Your task to perform on an android device: turn on sleep mode Image 0: 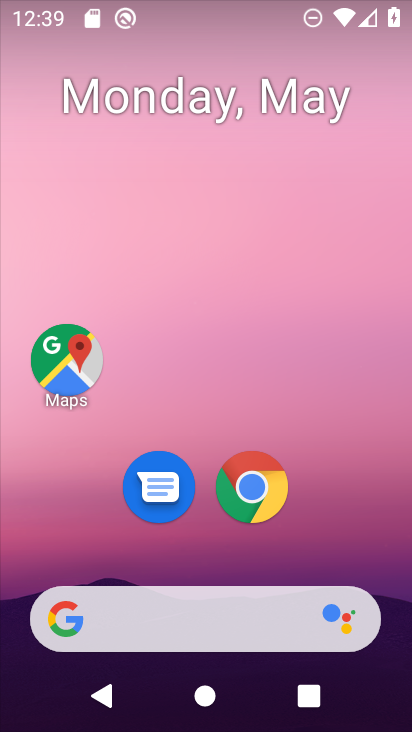
Step 0: drag from (325, 547) to (232, 77)
Your task to perform on an android device: turn on sleep mode Image 1: 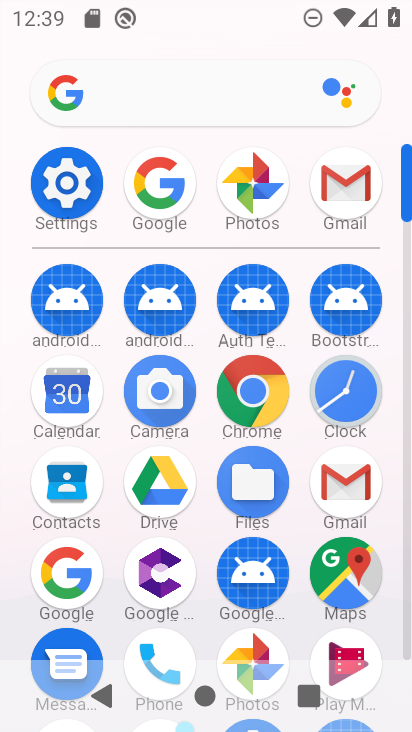
Step 1: click (69, 180)
Your task to perform on an android device: turn on sleep mode Image 2: 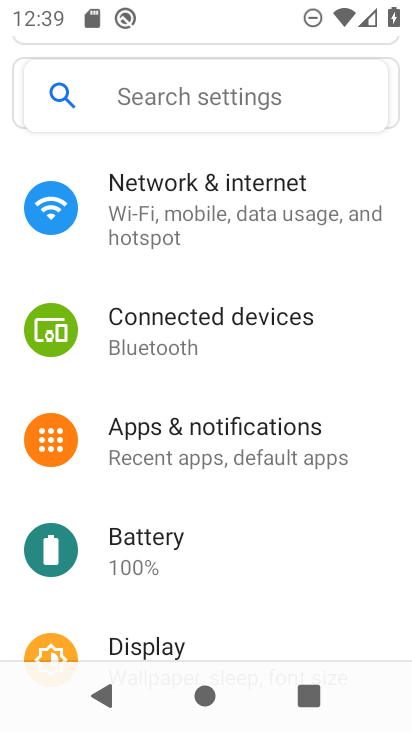
Step 2: drag from (199, 470) to (228, 409)
Your task to perform on an android device: turn on sleep mode Image 3: 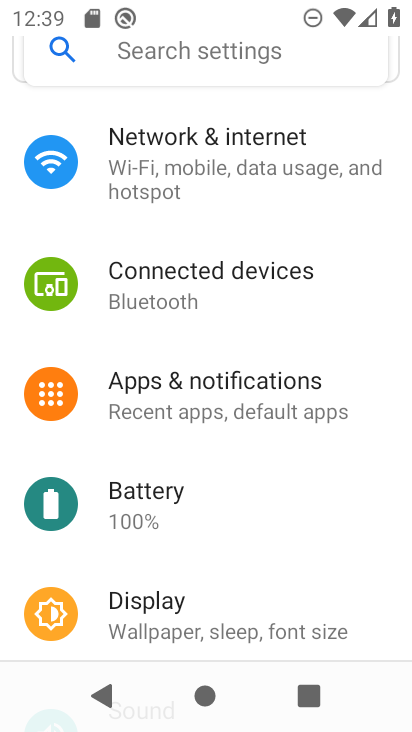
Step 3: drag from (198, 524) to (254, 432)
Your task to perform on an android device: turn on sleep mode Image 4: 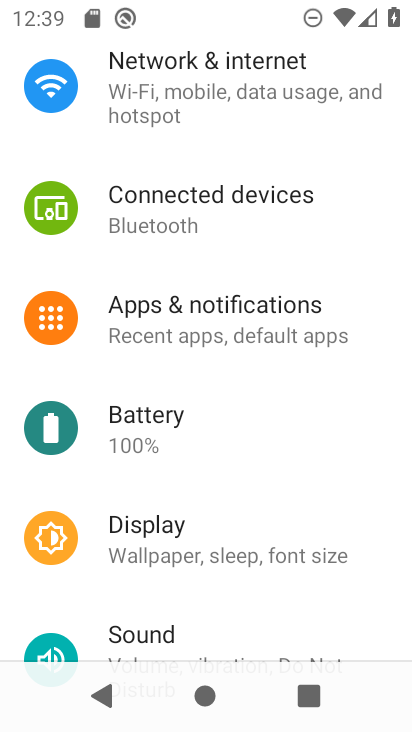
Step 4: drag from (180, 495) to (205, 414)
Your task to perform on an android device: turn on sleep mode Image 5: 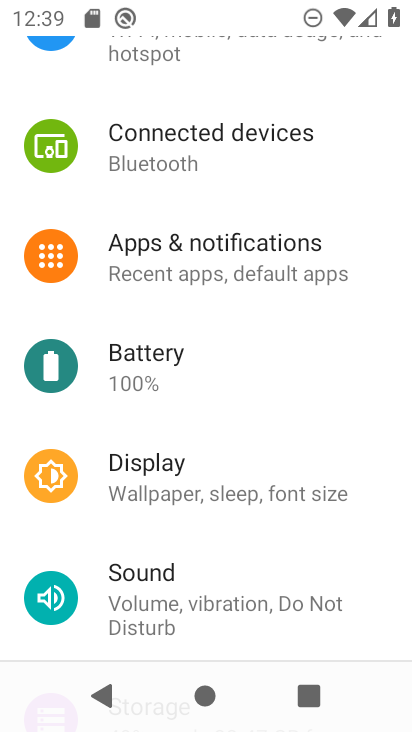
Step 5: drag from (137, 535) to (180, 438)
Your task to perform on an android device: turn on sleep mode Image 6: 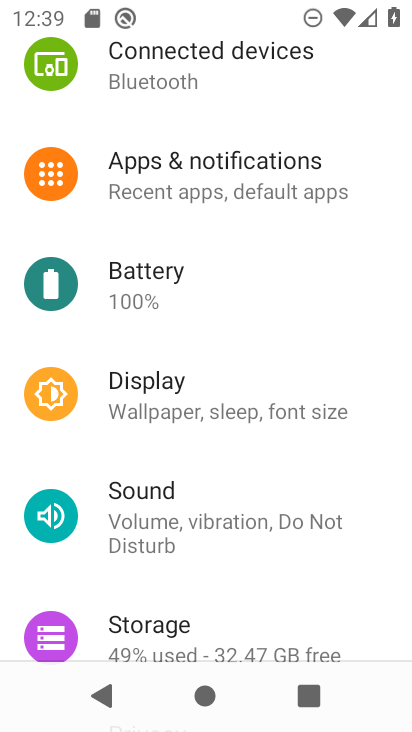
Step 6: click (201, 418)
Your task to perform on an android device: turn on sleep mode Image 7: 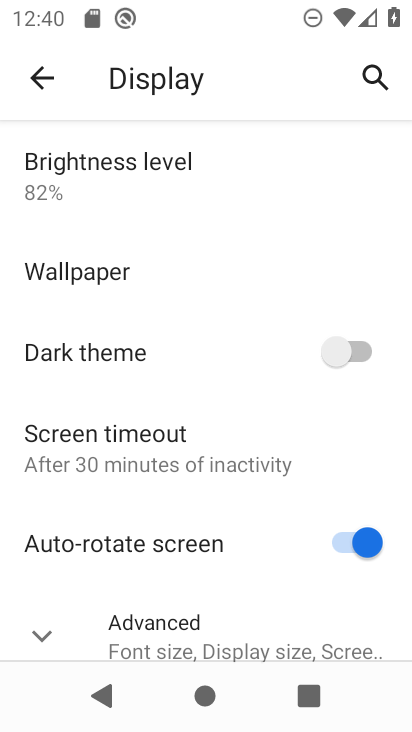
Step 7: drag from (129, 485) to (197, 390)
Your task to perform on an android device: turn on sleep mode Image 8: 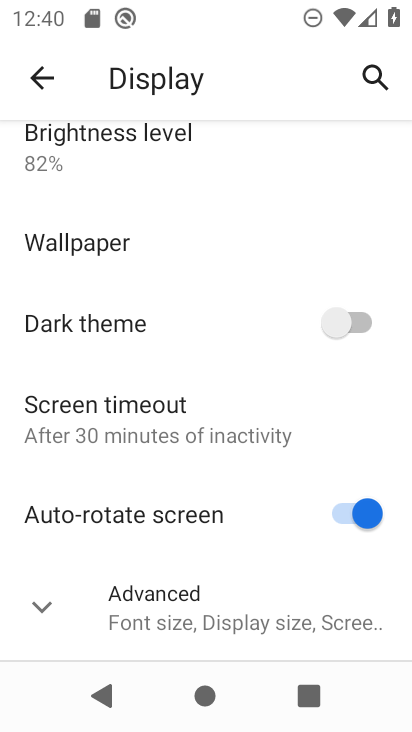
Step 8: click (156, 605)
Your task to perform on an android device: turn on sleep mode Image 9: 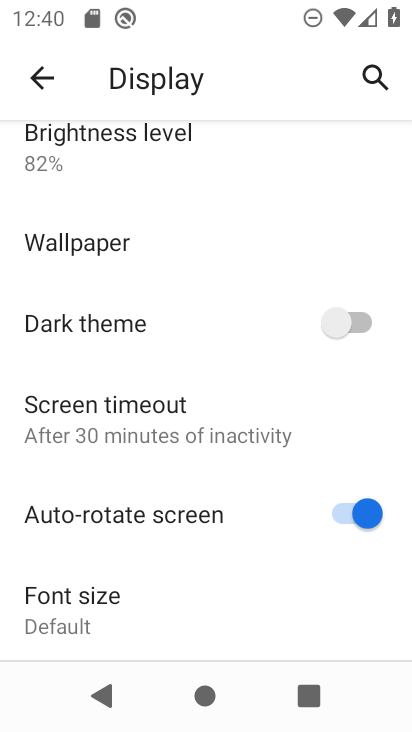
Step 9: drag from (117, 540) to (178, 449)
Your task to perform on an android device: turn on sleep mode Image 10: 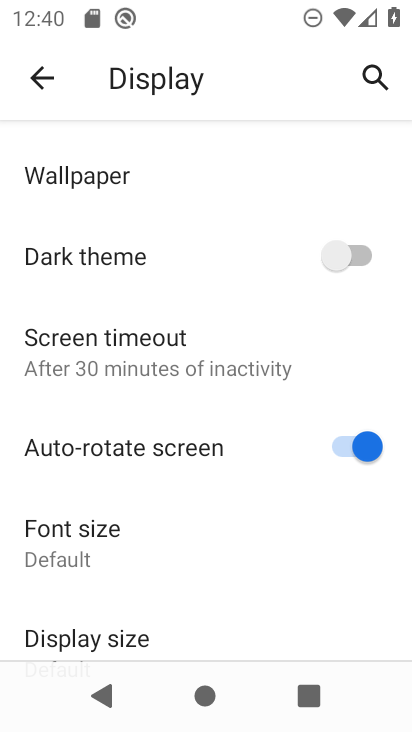
Step 10: drag from (106, 563) to (168, 485)
Your task to perform on an android device: turn on sleep mode Image 11: 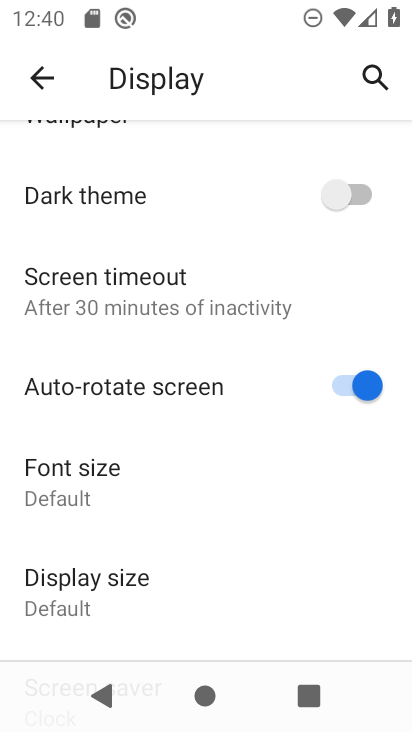
Step 11: drag from (121, 549) to (188, 462)
Your task to perform on an android device: turn on sleep mode Image 12: 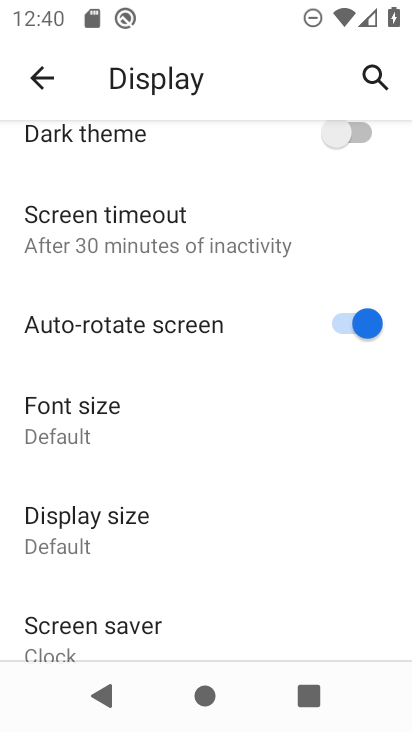
Step 12: drag from (115, 564) to (171, 477)
Your task to perform on an android device: turn on sleep mode Image 13: 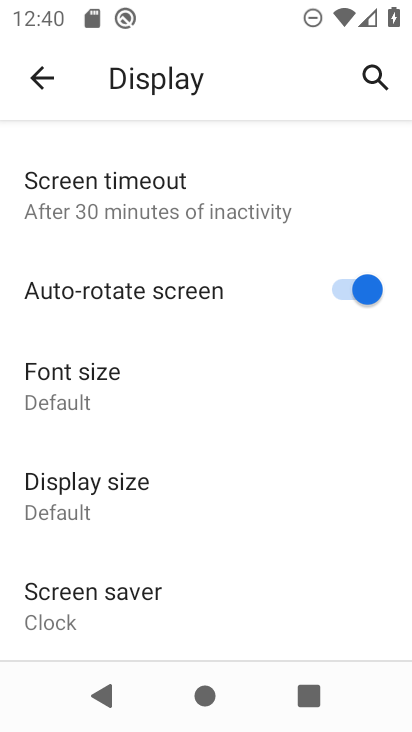
Step 13: drag from (111, 558) to (187, 448)
Your task to perform on an android device: turn on sleep mode Image 14: 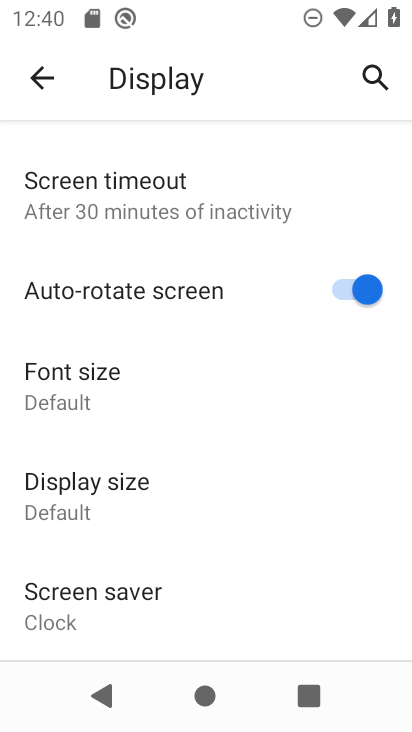
Step 14: click (105, 588)
Your task to perform on an android device: turn on sleep mode Image 15: 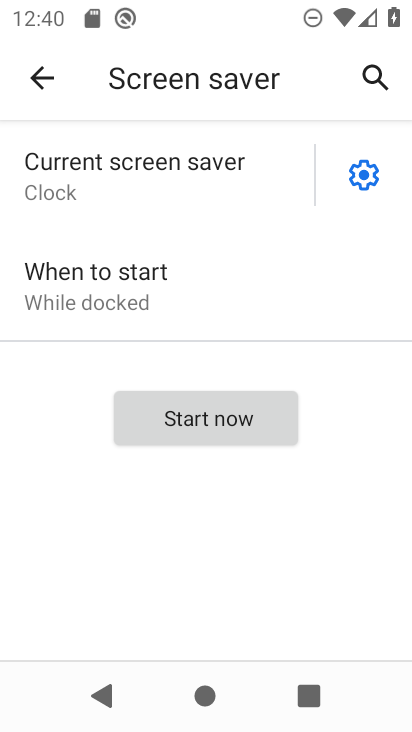
Step 15: click (366, 174)
Your task to perform on an android device: turn on sleep mode Image 16: 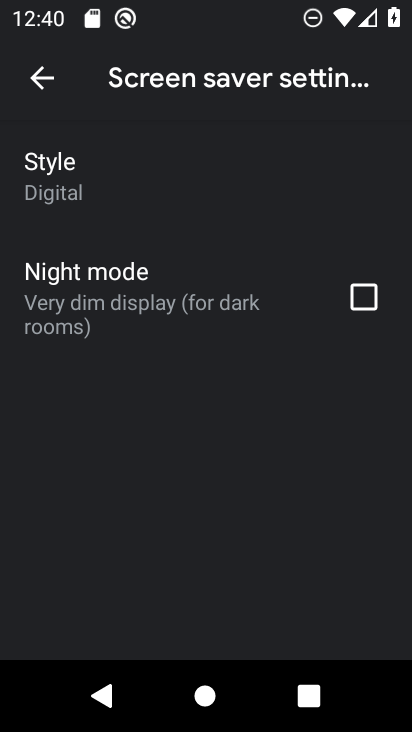
Step 16: click (373, 295)
Your task to perform on an android device: turn on sleep mode Image 17: 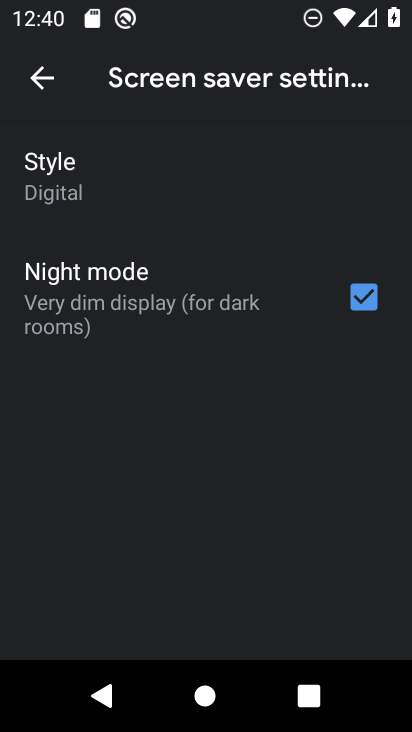
Step 17: click (51, 75)
Your task to perform on an android device: turn on sleep mode Image 18: 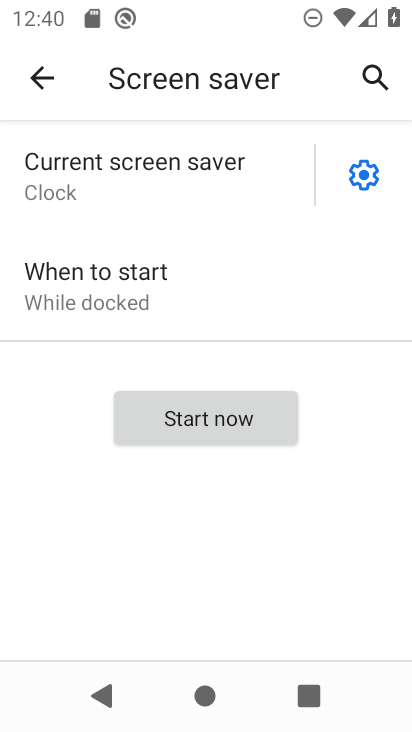
Step 18: task complete